Your task to perform on an android device: change text size in settings app Image 0: 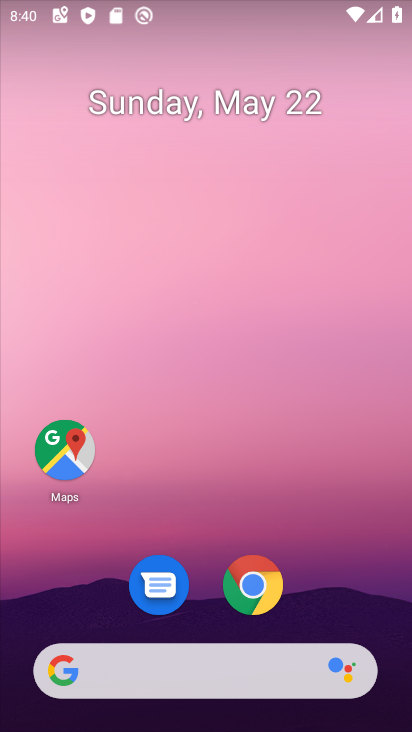
Step 0: drag from (220, 491) to (193, 0)
Your task to perform on an android device: change text size in settings app Image 1: 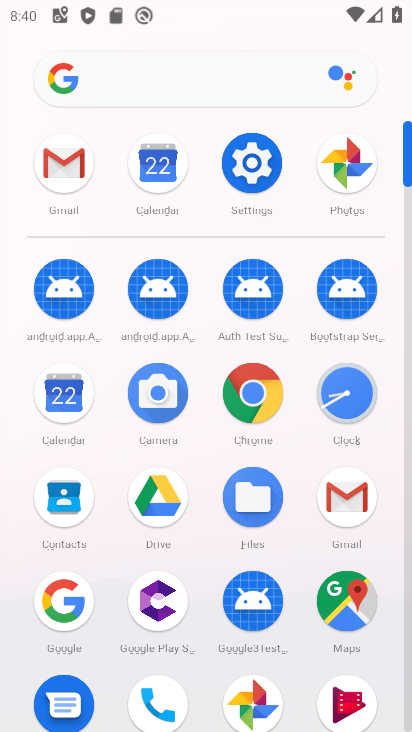
Step 1: click (242, 166)
Your task to perform on an android device: change text size in settings app Image 2: 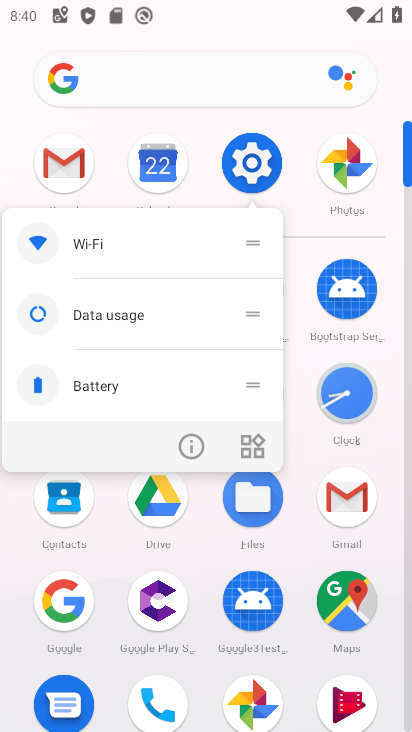
Step 2: click (253, 146)
Your task to perform on an android device: change text size in settings app Image 3: 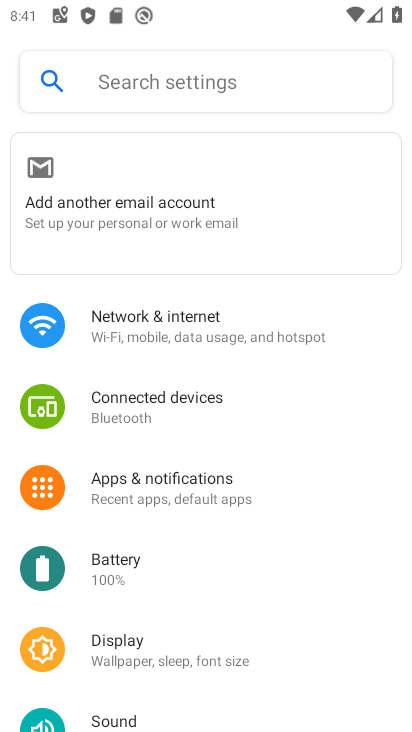
Step 3: click (192, 661)
Your task to perform on an android device: change text size in settings app Image 4: 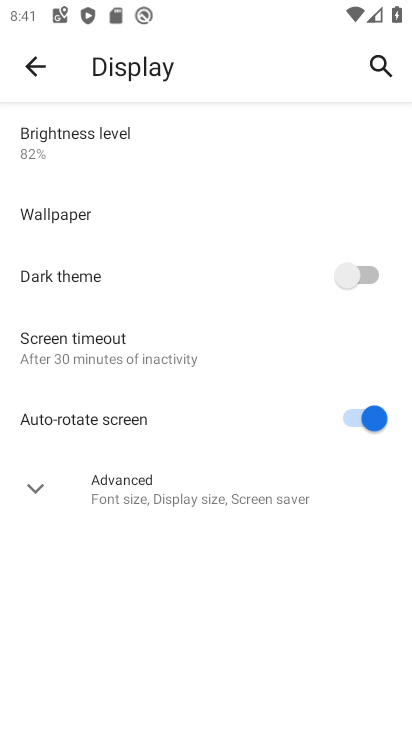
Step 4: click (36, 482)
Your task to perform on an android device: change text size in settings app Image 5: 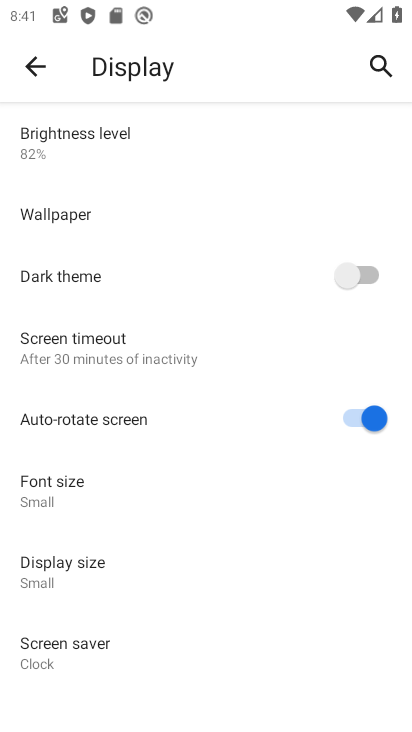
Step 5: click (38, 484)
Your task to perform on an android device: change text size in settings app Image 6: 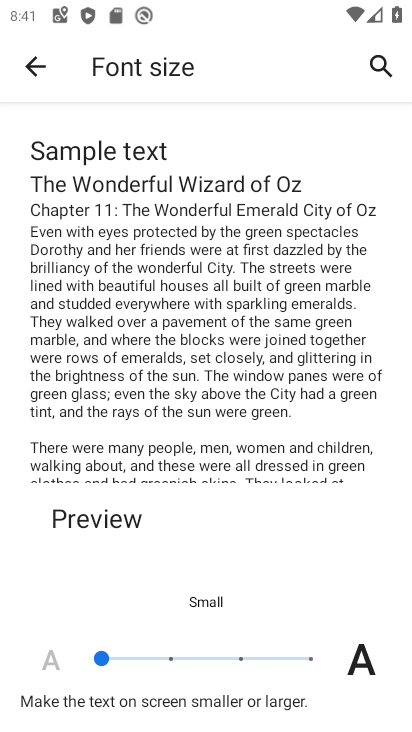
Step 6: click (170, 658)
Your task to perform on an android device: change text size in settings app Image 7: 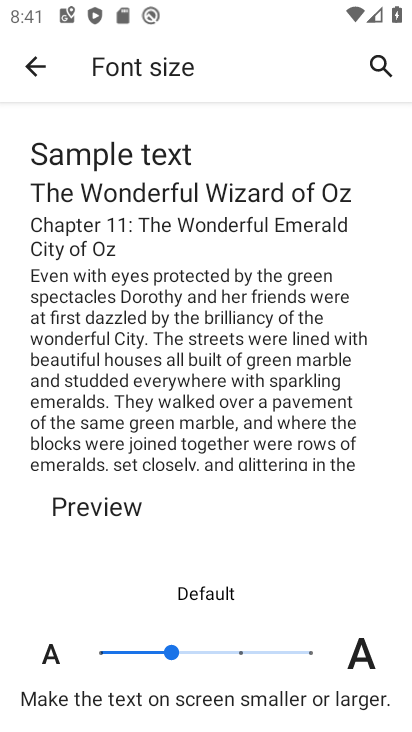
Step 7: click (37, 59)
Your task to perform on an android device: change text size in settings app Image 8: 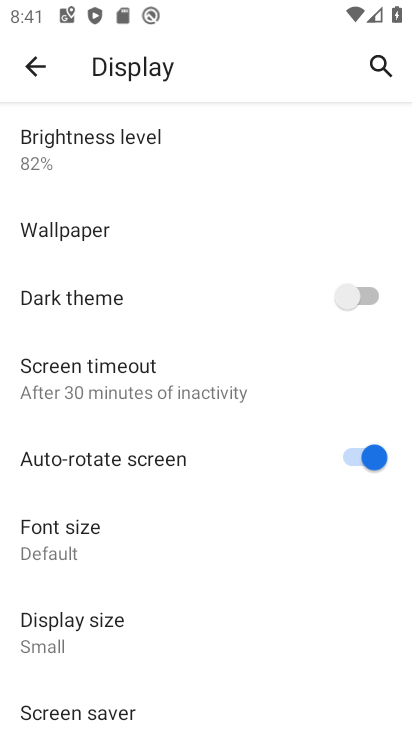
Step 8: task complete